Your task to perform on an android device: What's the weather going to be tomorrow? Image 0: 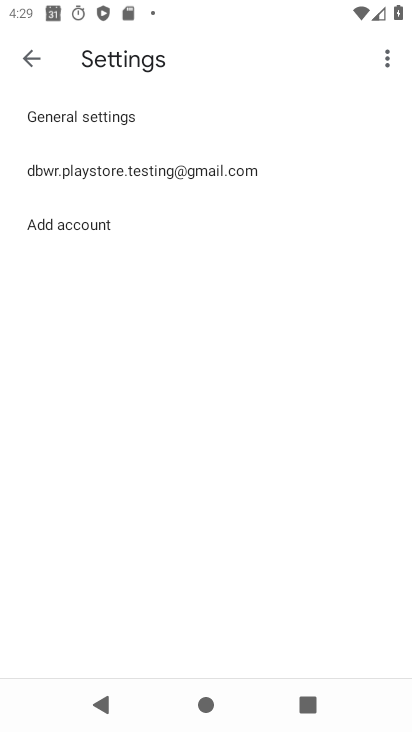
Step 0: press home button
Your task to perform on an android device: What's the weather going to be tomorrow? Image 1: 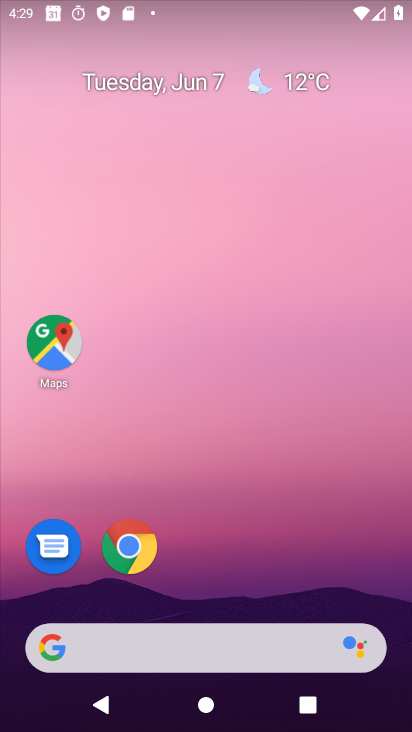
Step 1: click (307, 86)
Your task to perform on an android device: What's the weather going to be tomorrow? Image 2: 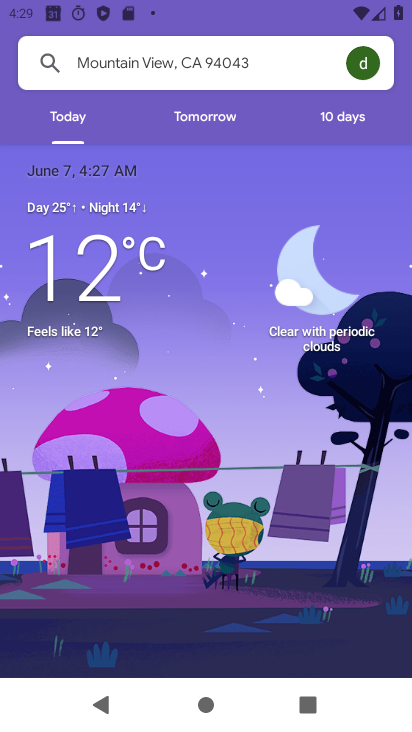
Step 2: click (200, 120)
Your task to perform on an android device: What's the weather going to be tomorrow? Image 3: 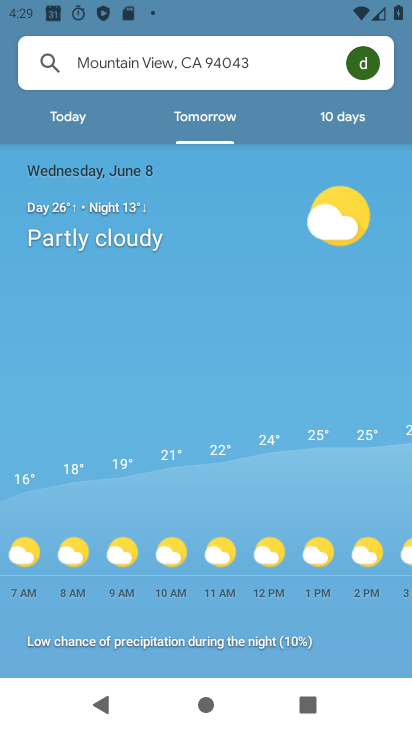
Step 3: task complete